Your task to perform on an android device: install app "Calculator" Image 0: 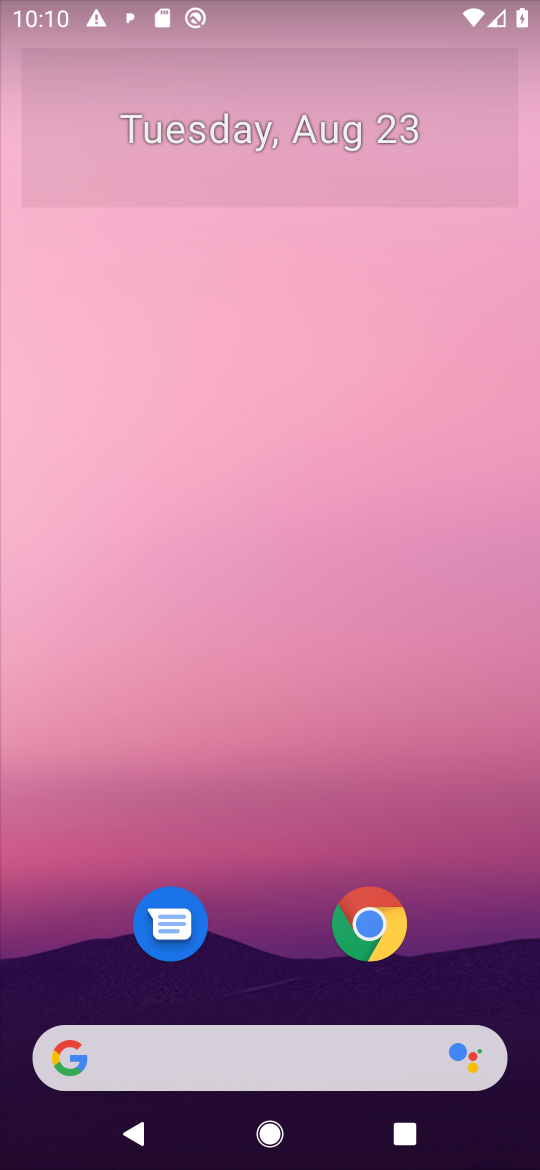
Step 0: press home button
Your task to perform on an android device: install app "Calculator" Image 1: 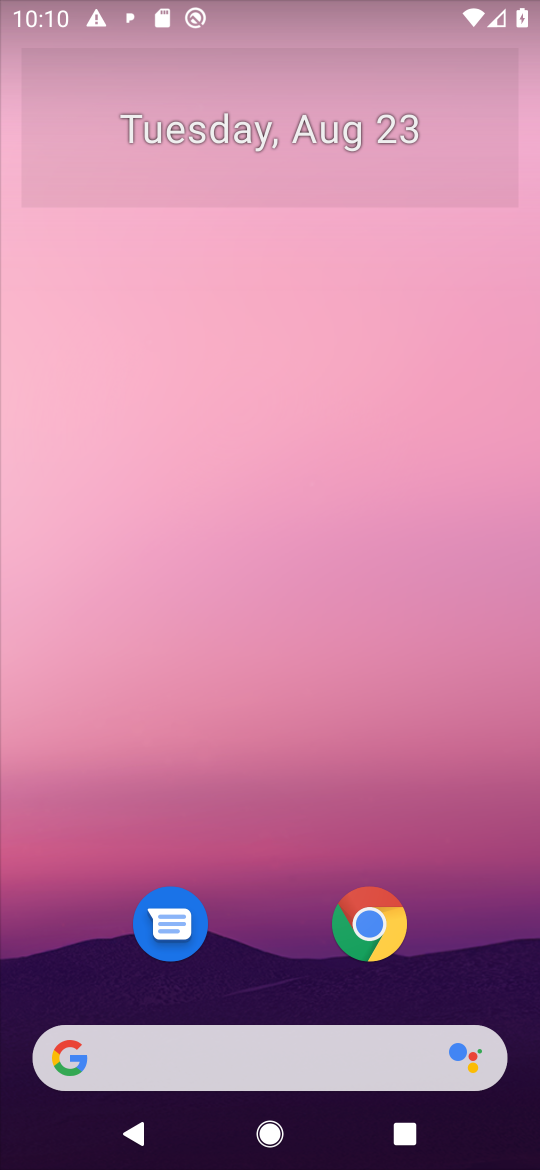
Step 1: drag from (466, 961) to (472, 154)
Your task to perform on an android device: install app "Calculator" Image 2: 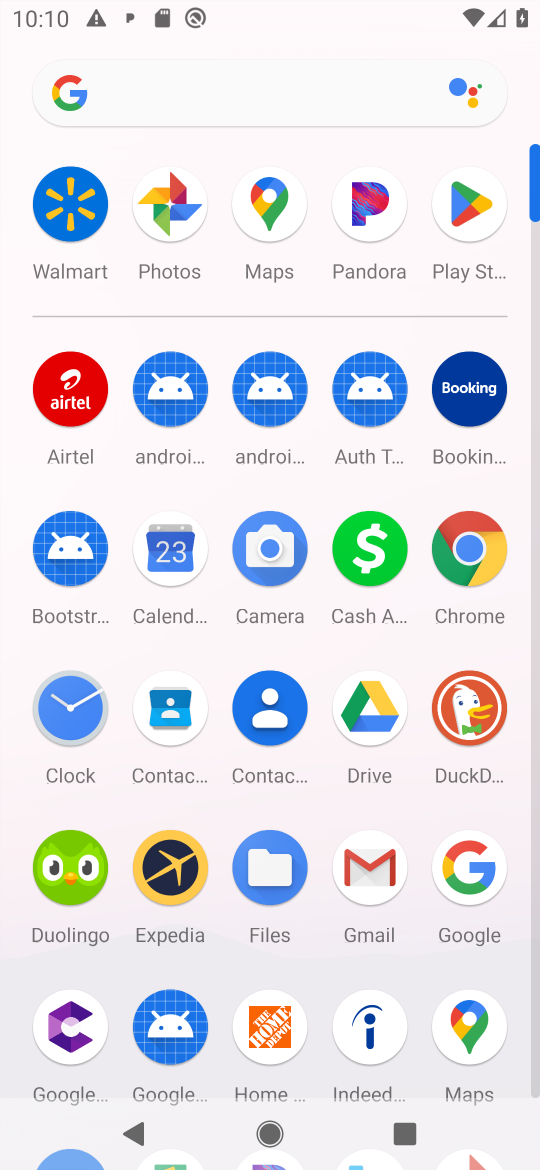
Step 2: click (464, 222)
Your task to perform on an android device: install app "Calculator" Image 3: 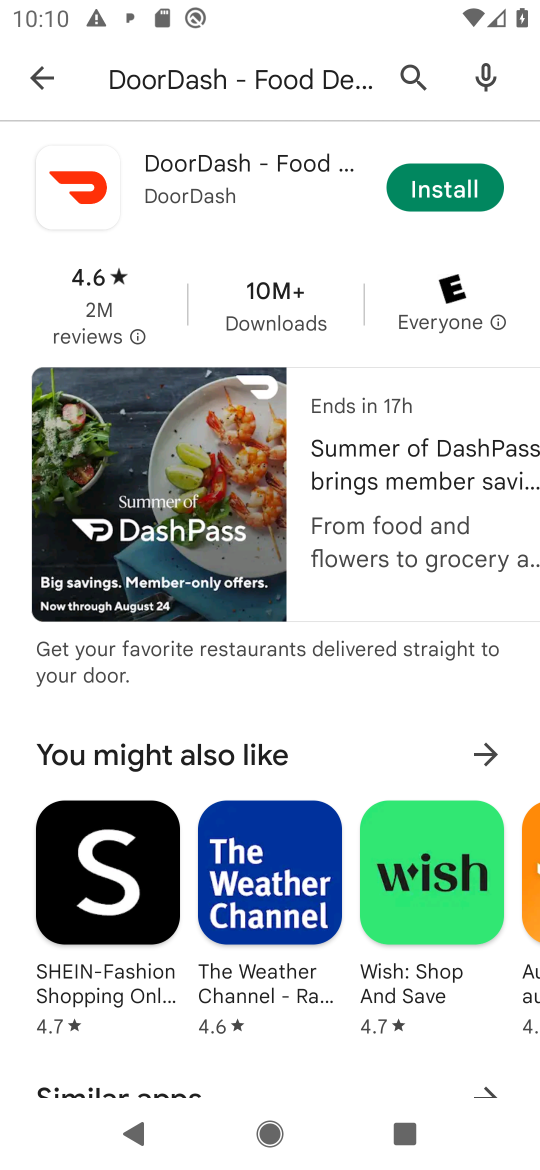
Step 3: press back button
Your task to perform on an android device: install app "Calculator" Image 4: 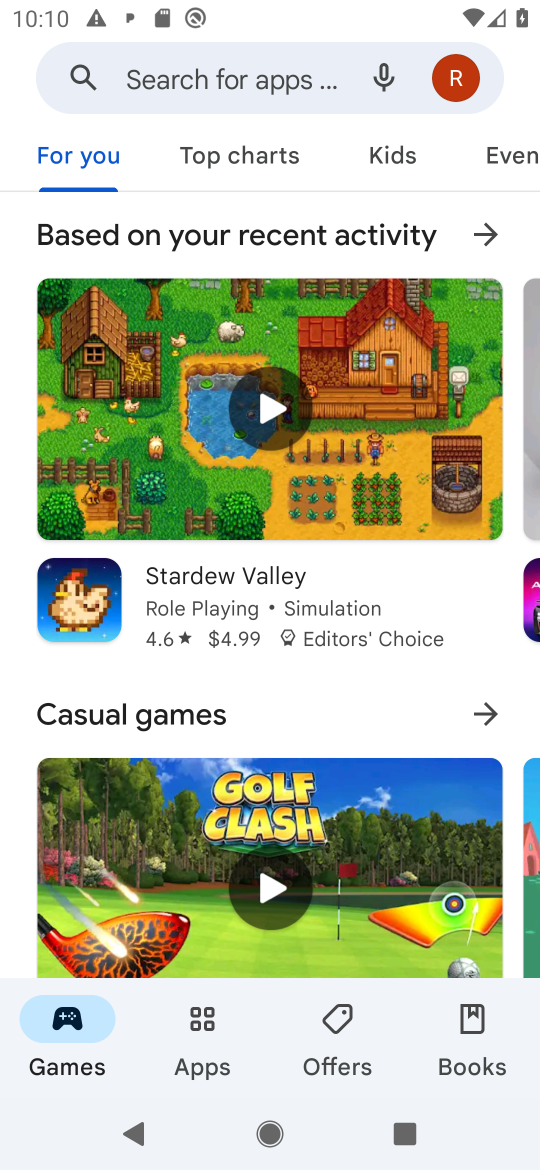
Step 4: click (275, 69)
Your task to perform on an android device: install app "Calculator" Image 5: 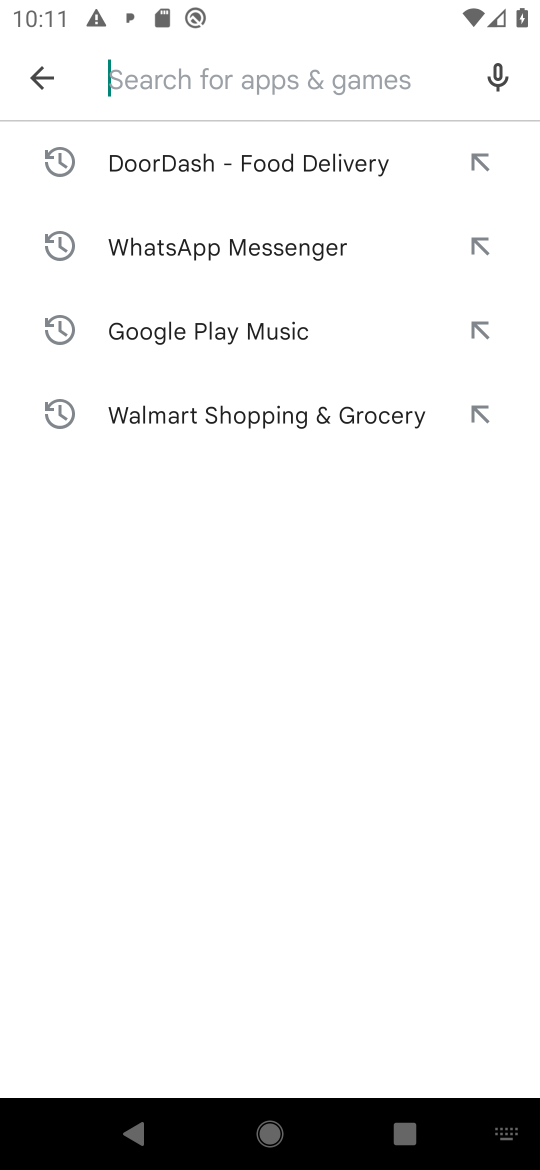
Step 5: type "Calculator"
Your task to perform on an android device: install app "Calculator" Image 6: 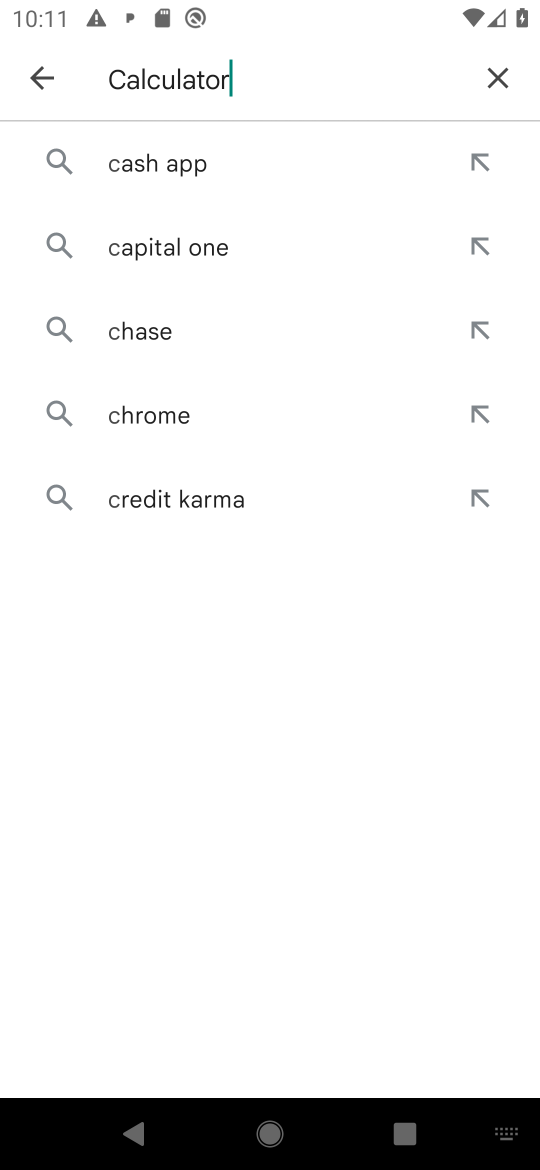
Step 6: press enter
Your task to perform on an android device: install app "Calculator" Image 7: 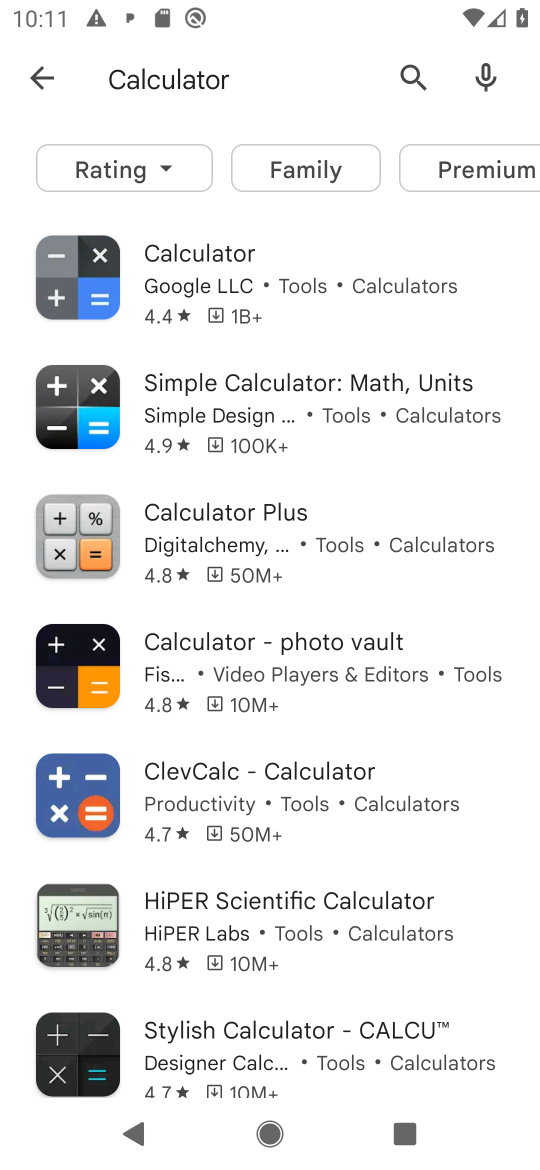
Step 7: click (280, 287)
Your task to perform on an android device: install app "Calculator" Image 8: 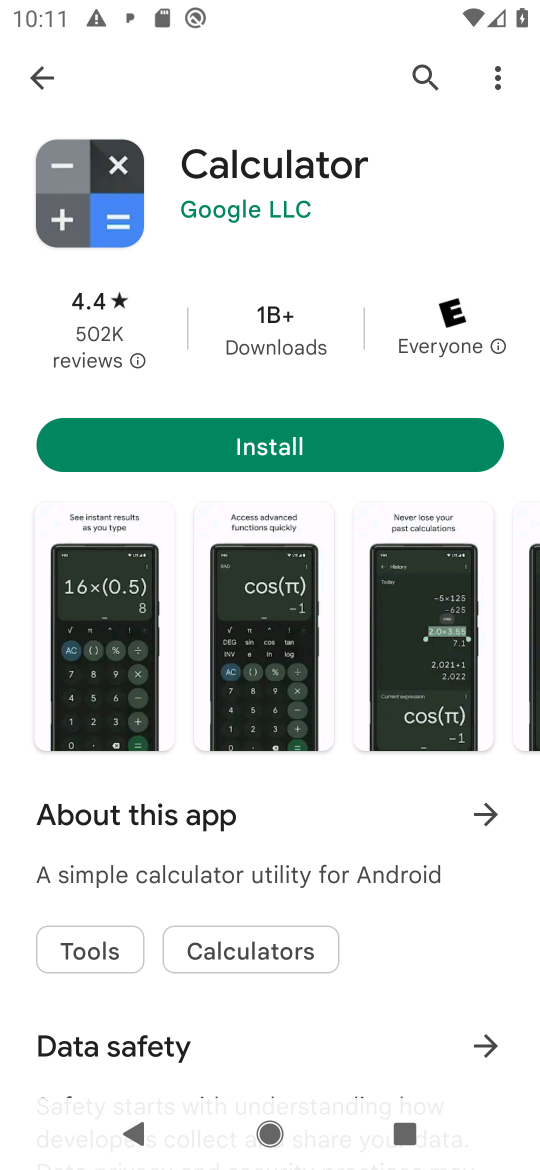
Step 8: click (325, 439)
Your task to perform on an android device: install app "Calculator" Image 9: 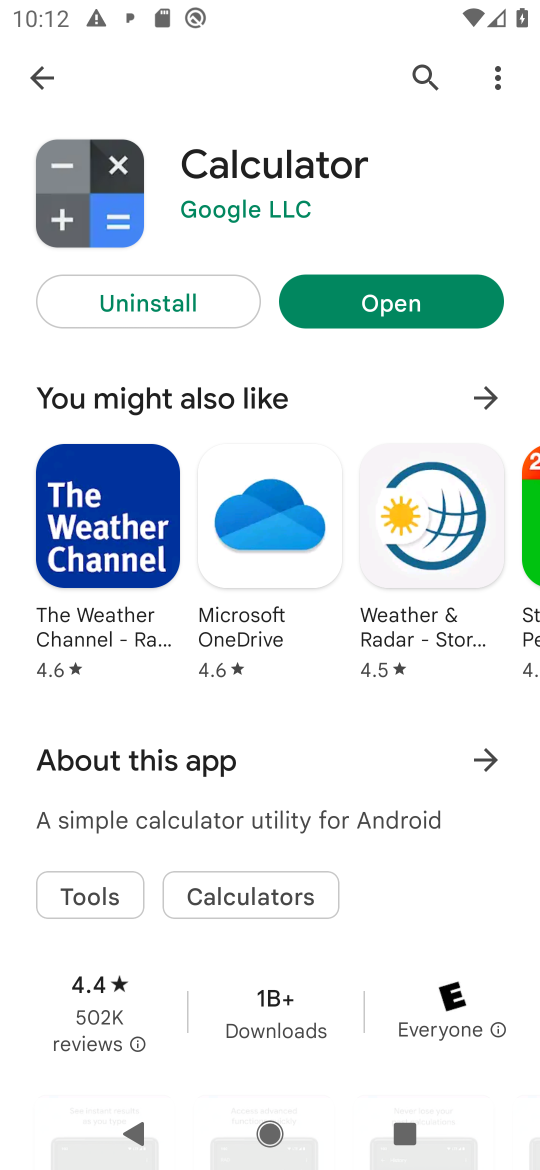
Step 9: task complete